Your task to perform on an android device: change text size in settings app Image 0: 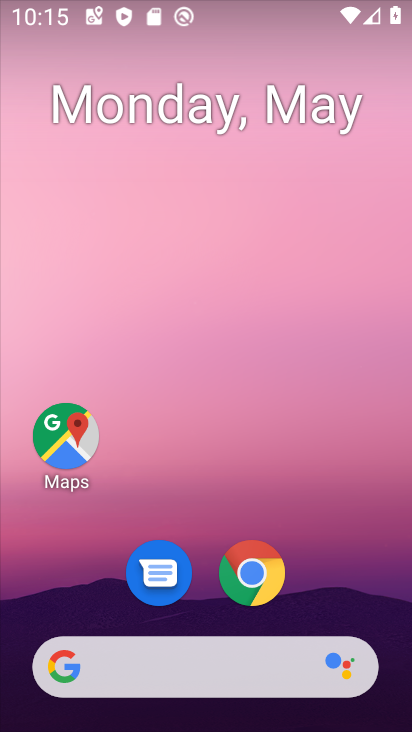
Step 0: drag from (211, 566) to (192, 45)
Your task to perform on an android device: change text size in settings app Image 1: 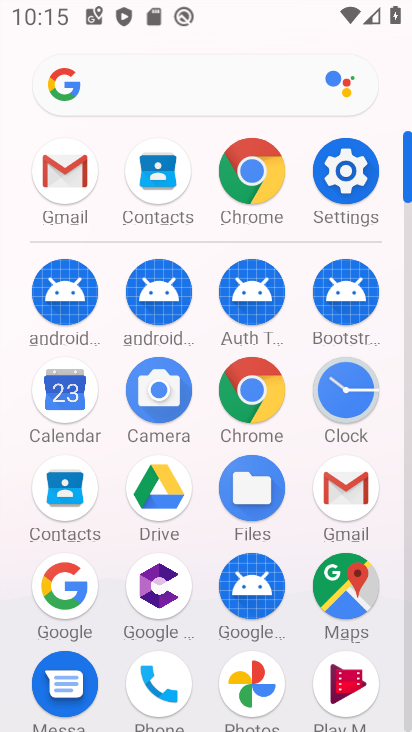
Step 1: click (342, 182)
Your task to perform on an android device: change text size in settings app Image 2: 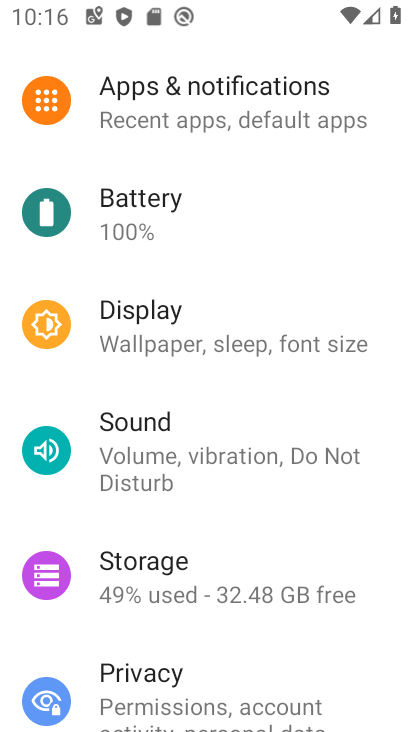
Step 2: click (216, 338)
Your task to perform on an android device: change text size in settings app Image 3: 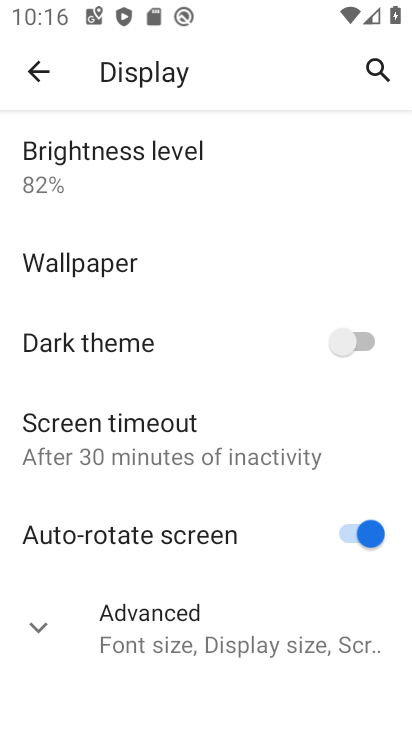
Step 3: click (195, 651)
Your task to perform on an android device: change text size in settings app Image 4: 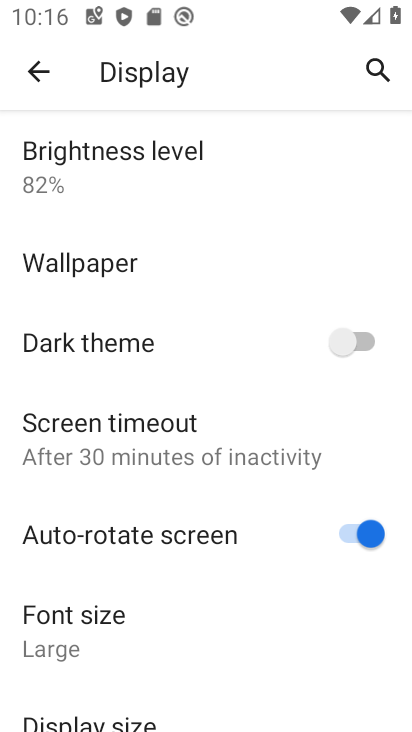
Step 4: drag from (127, 618) to (189, 107)
Your task to perform on an android device: change text size in settings app Image 5: 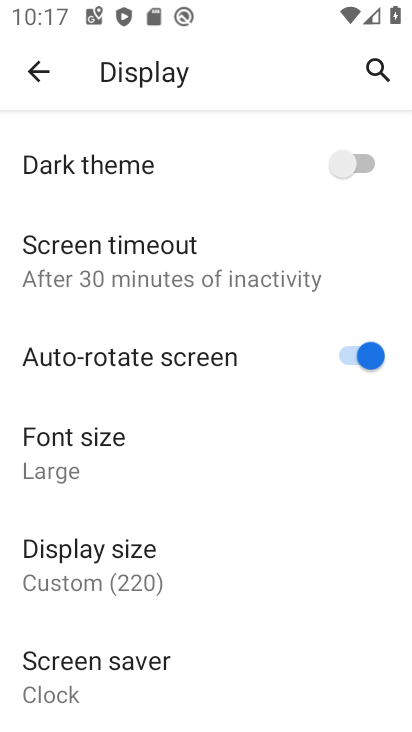
Step 5: click (156, 454)
Your task to perform on an android device: change text size in settings app Image 6: 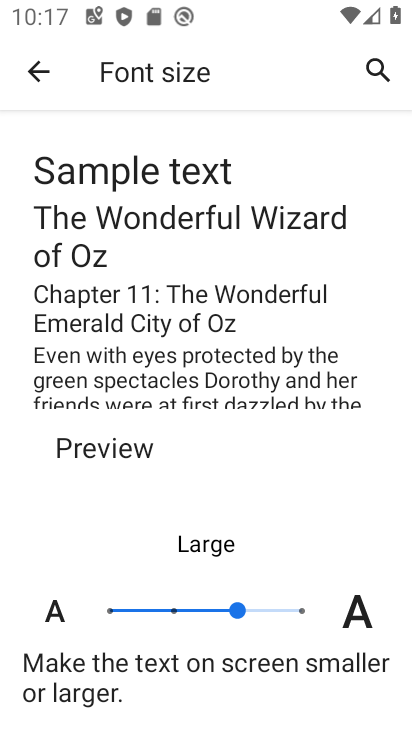
Step 6: click (163, 600)
Your task to perform on an android device: change text size in settings app Image 7: 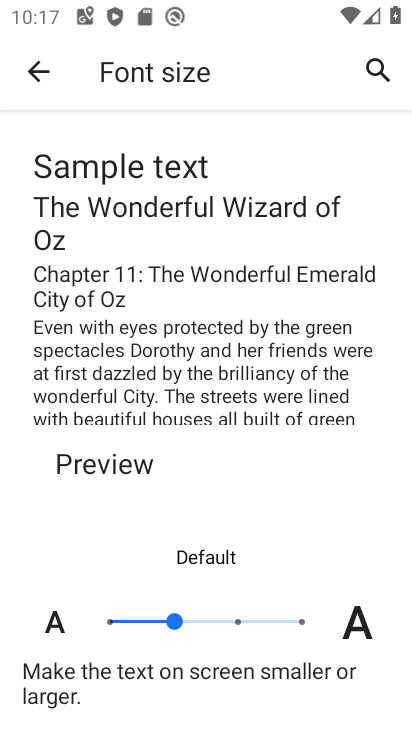
Step 7: task complete